Your task to perform on an android device: change keyboard looks Image 0: 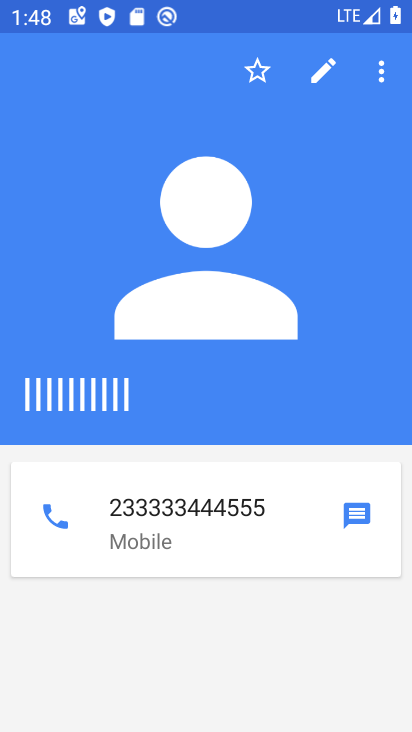
Step 0: press home button
Your task to perform on an android device: change keyboard looks Image 1: 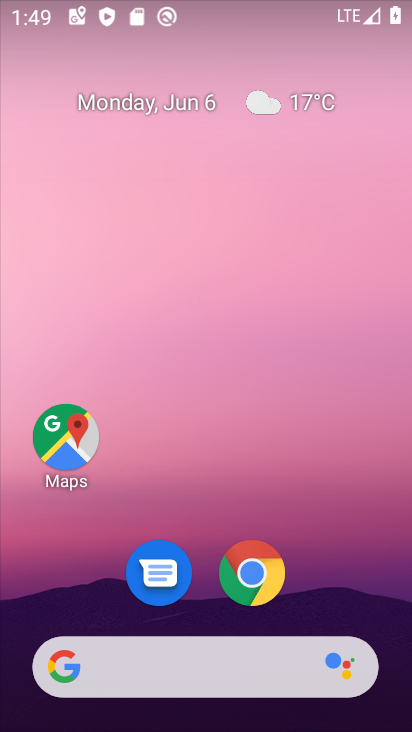
Step 1: drag from (370, 606) to (367, 196)
Your task to perform on an android device: change keyboard looks Image 2: 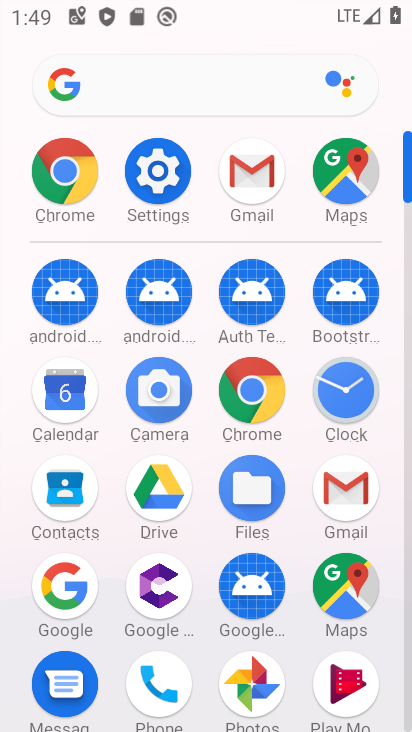
Step 2: click (140, 179)
Your task to perform on an android device: change keyboard looks Image 3: 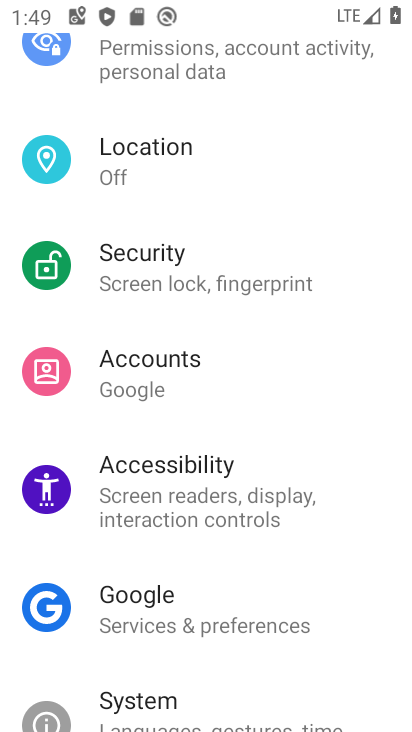
Step 3: drag from (340, 510) to (350, 360)
Your task to perform on an android device: change keyboard looks Image 4: 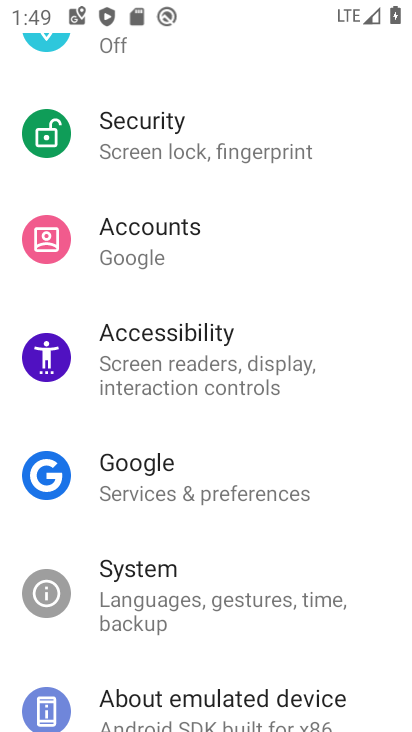
Step 4: drag from (350, 521) to (358, 398)
Your task to perform on an android device: change keyboard looks Image 5: 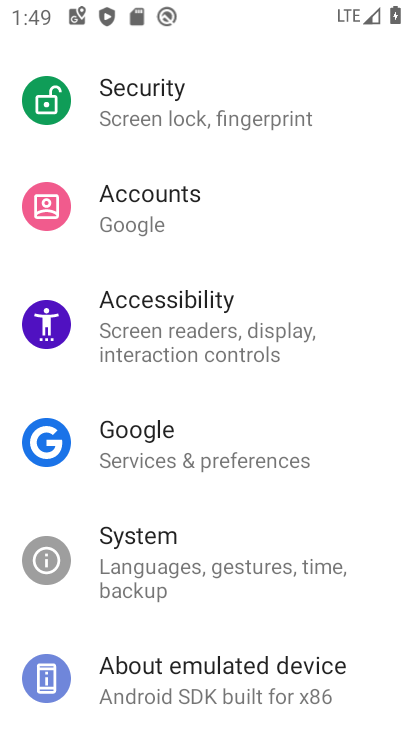
Step 5: click (264, 556)
Your task to perform on an android device: change keyboard looks Image 6: 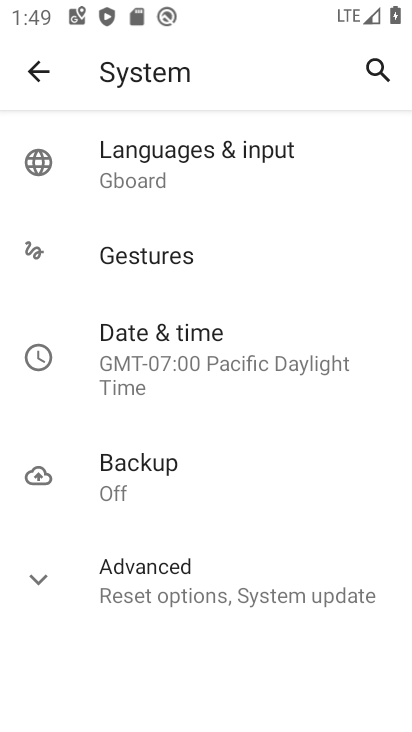
Step 6: click (173, 166)
Your task to perform on an android device: change keyboard looks Image 7: 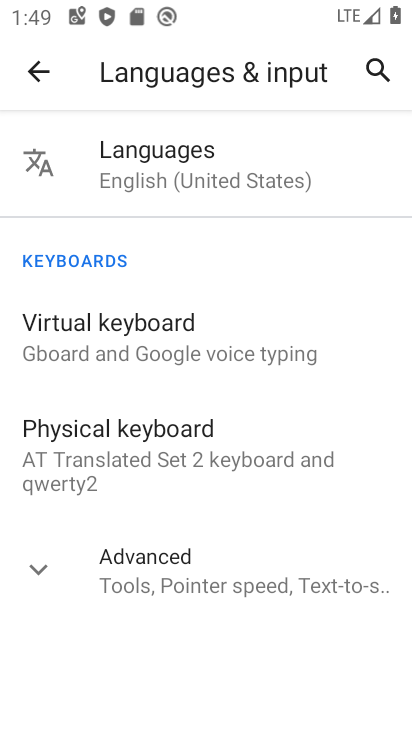
Step 7: click (127, 339)
Your task to perform on an android device: change keyboard looks Image 8: 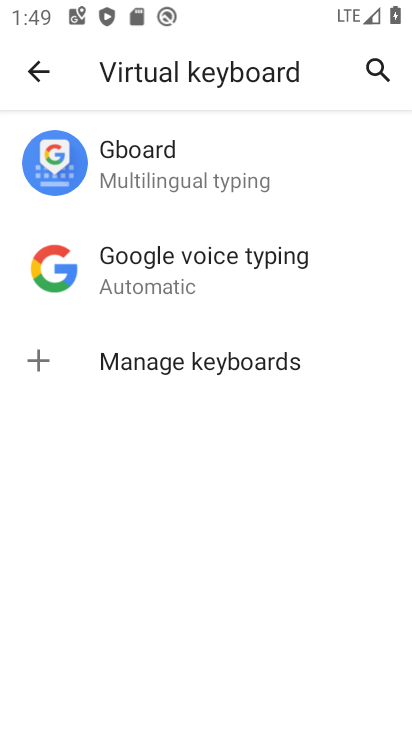
Step 8: click (212, 178)
Your task to perform on an android device: change keyboard looks Image 9: 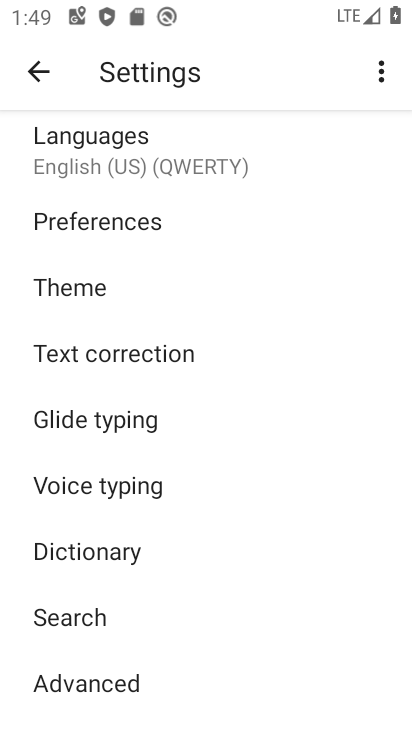
Step 9: click (89, 305)
Your task to perform on an android device: change keyboard looks Image 10: 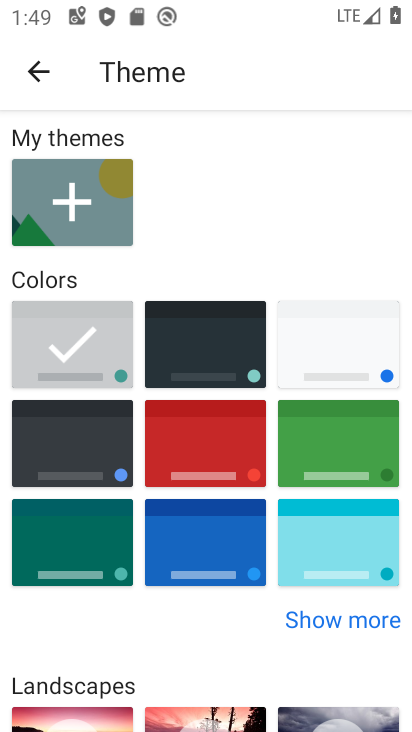
Step 10: click (210, 435)
Your task to perform on an android device: change keyboard looks Image 11: 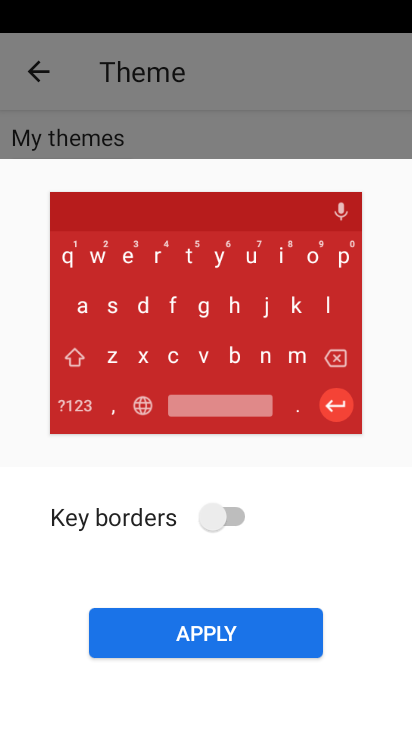
Step 11: click (229, 643)
Your task to perform on an android device: change keyboard looks Image 12: 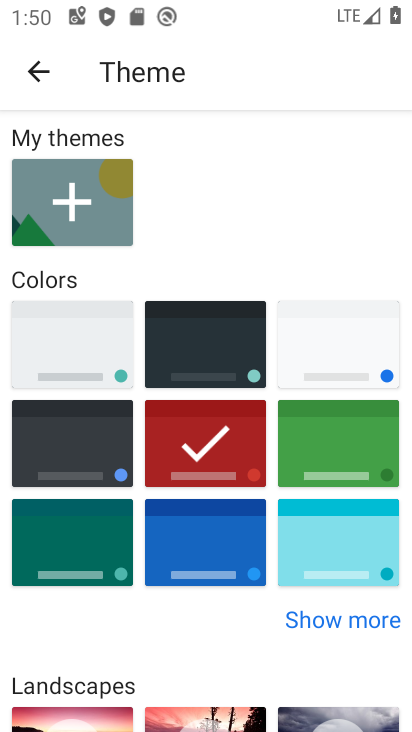
Step 12: task complete